Your task to perform on an android device: Go to Maps Image 0: 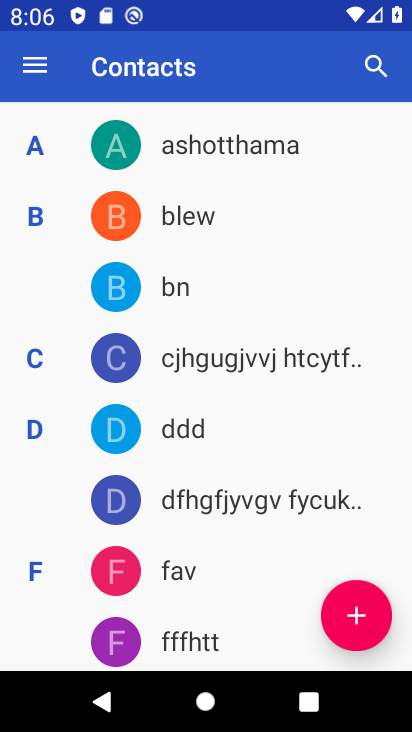
Step 0: press home button
Your task to perform on an android device: Go to Maps Image 1: 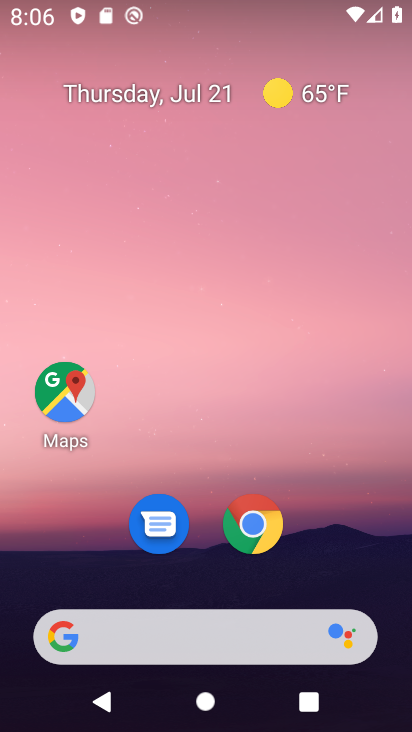
Step 1: click (59, 405)
Your task to perform on an android device: Go to Maps Image 2: 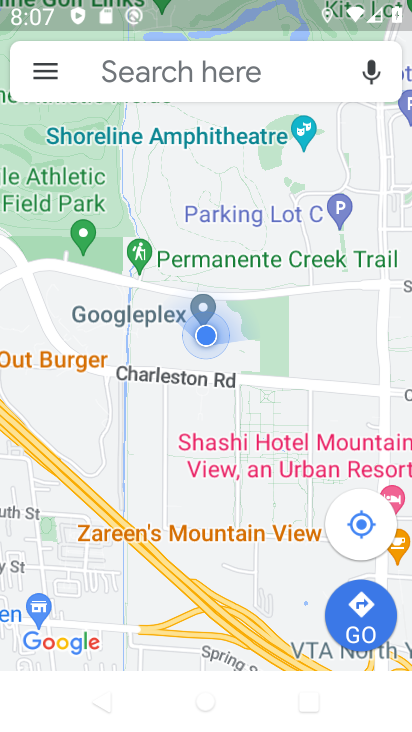
Step 2: task complete